Your task to perform on an android device: Open settings Image 0: 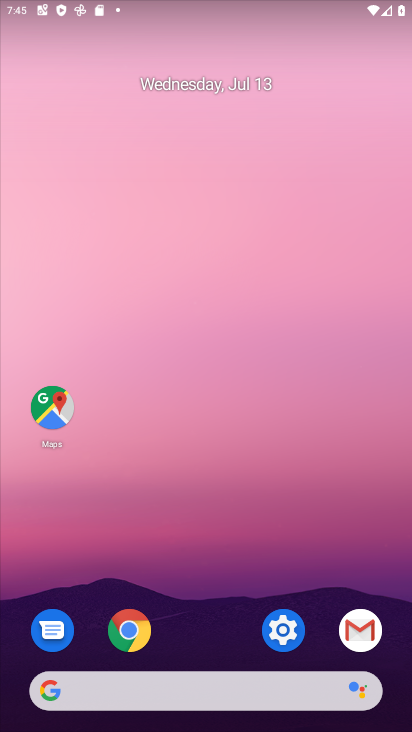
Step 0: click (291, 622)
Your task to perform on an android device: Open settings Image 1: 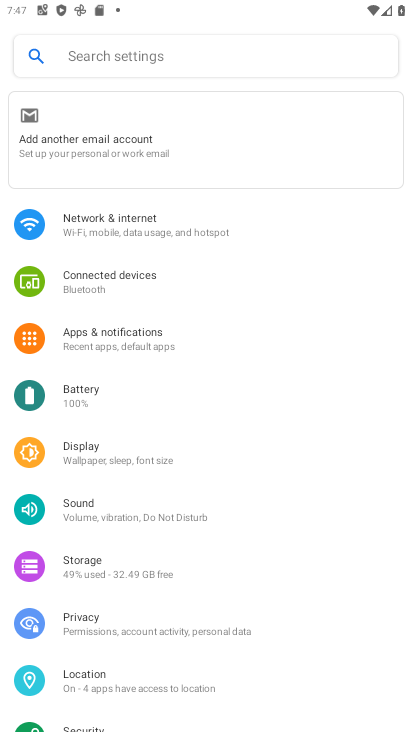
Step 1: task complete